Your task to perform on an android device: Open accessibility settings Image 0: 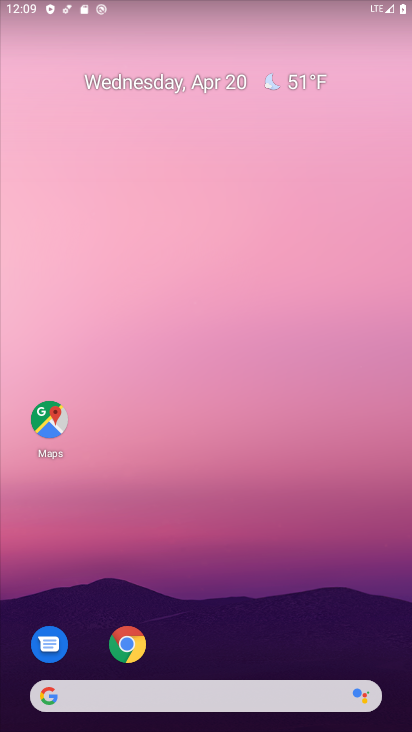
Step 0: drag from (198, 725) to (188, 121)
Your task to perform on an android device: Open accessibility settings Image 1: 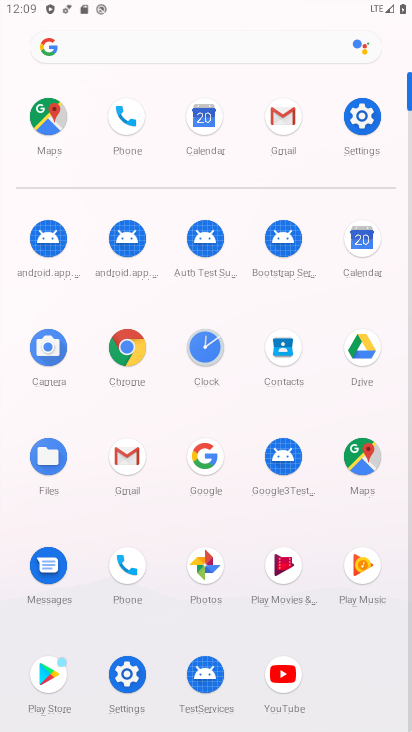
Step 1: click (359, 117)
Your task to perform on an android device: Open accessibility settings Image 2: 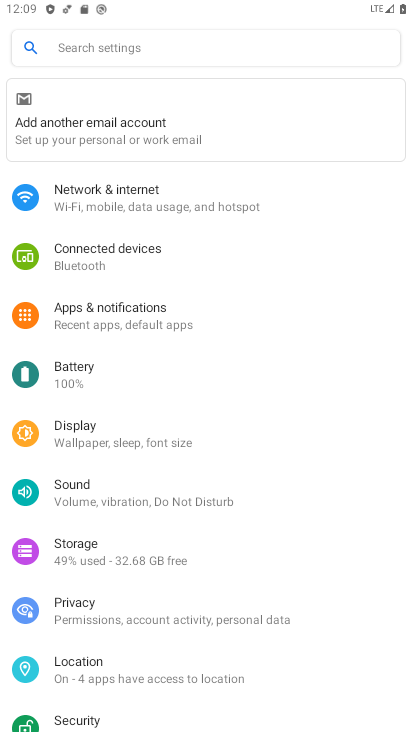
Step 2: drag from (158, 662) to (132, 188)
Your task to perform on an android device: Open accessibility settings Image 3: 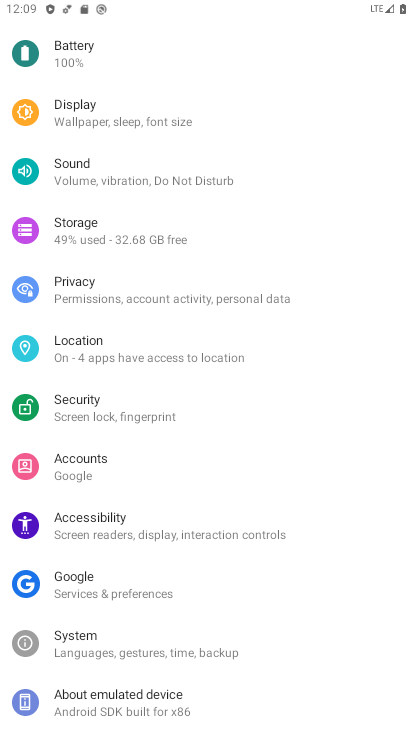
Step 3: click (79, 520)
Your task to perform on an android device: Open accessibility settings Image 4: 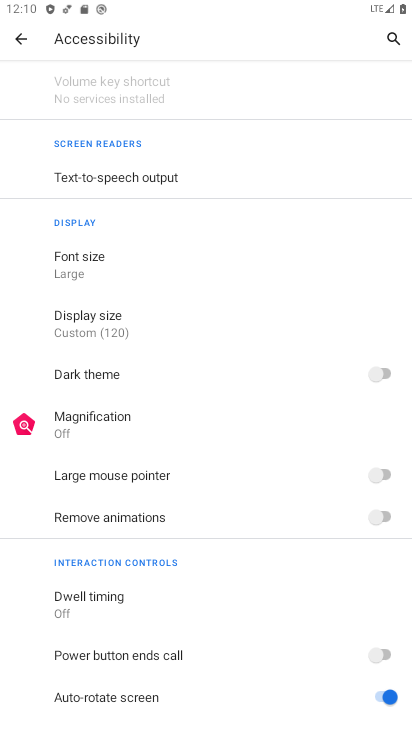
Step 4: task complete